Your task to perform on an android device: Open Google Chrome and open the bookmarks view Image 0: 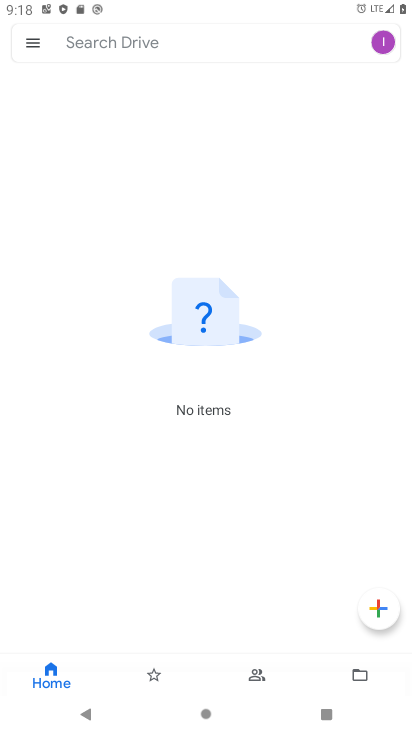
Step 0: press home button
Your task to perform on an android device: Open Google Chrome and open the bookmarks view Image 1: 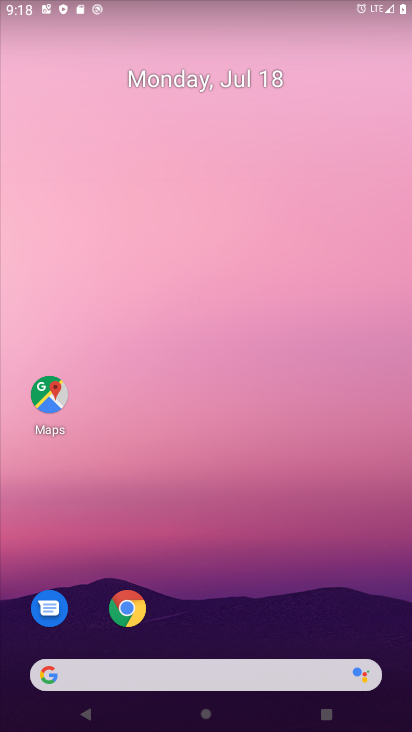
Step 1: drag from (237, 716) to (226, 210)
Your task to perform on an android device: Open Google Chrome and open the bookmarks view Image 2: 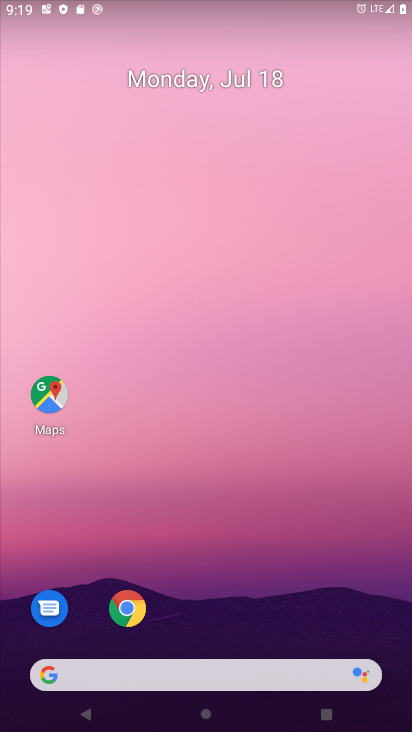
Step 2: click (128, 608)
Your task to perform on an android device: Open Google Chrome and open the bookmarks view Image 3: 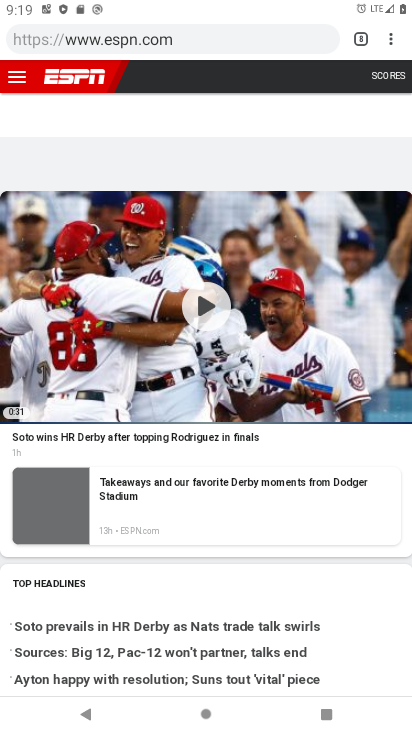
Step 3: click (391, 42)
Your task to perform on an android device: Open Google Chrome and open the bookmarks view Image 4: 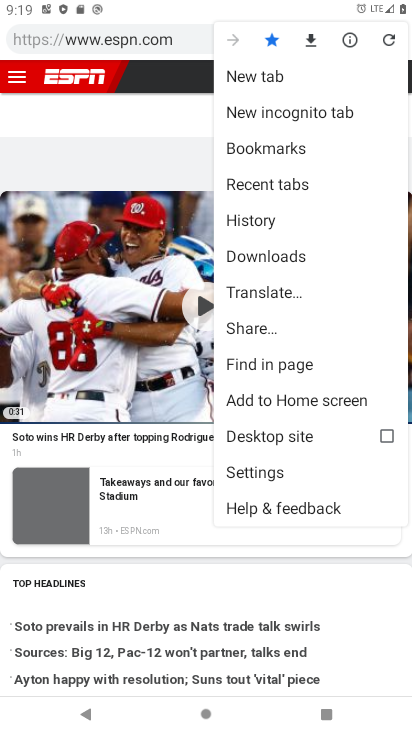
Step 4: click (262, 138)
Your task to perform on an android device: Open Google Chrome and open the bookmarks view Image 5: 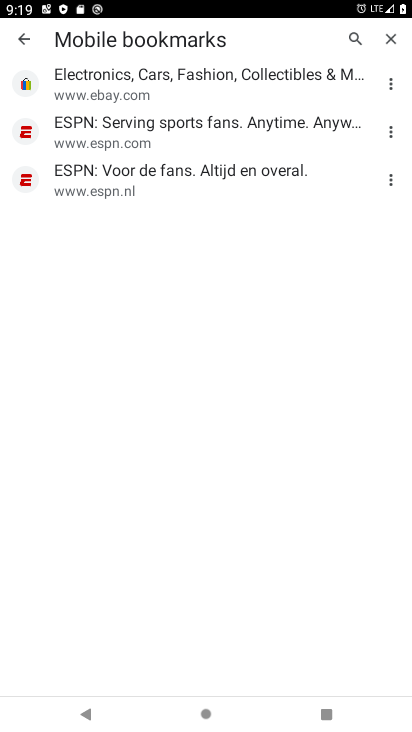
Step 5: task complete